Your task to perform on an android device: Go to eBay Image 0: 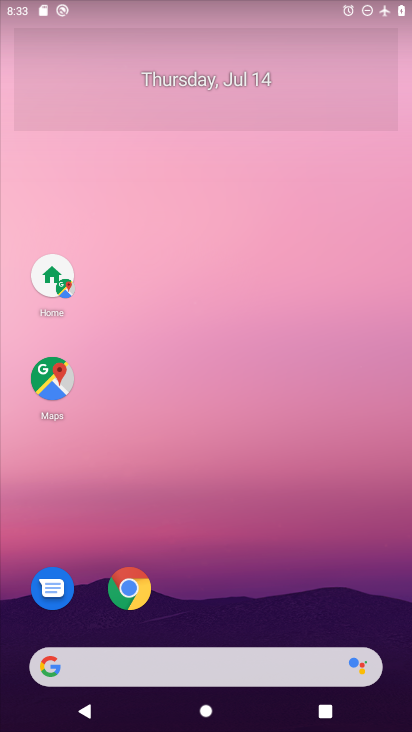
Step 0: click (113, 665)
Your task to perform on an android device: Go to eBay Image 1: 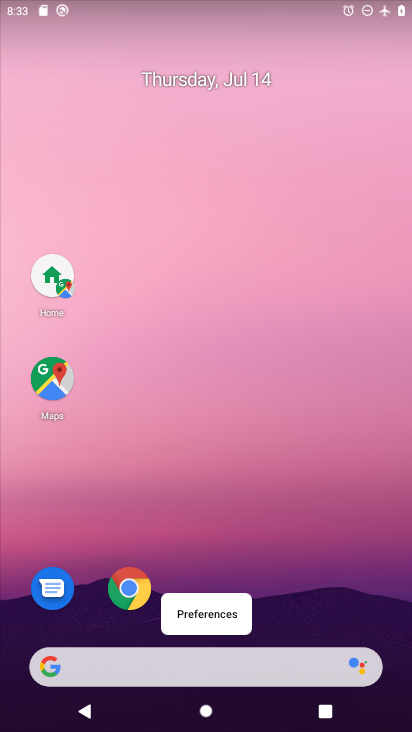
Step 1: click (108, 650)
Your task to perform on an android device: Go to eBay Image 2: 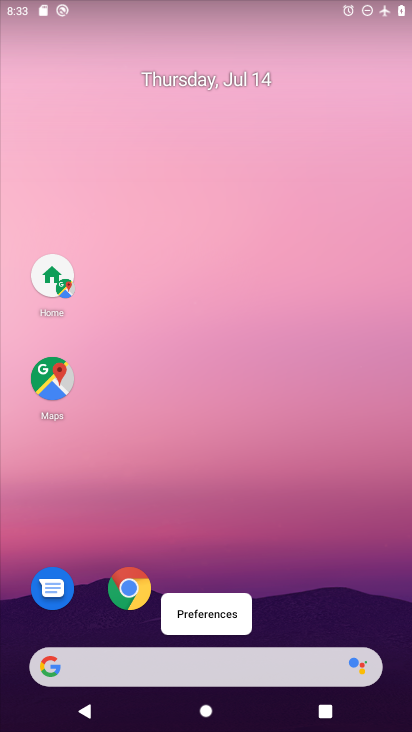
Step 2: click (148, 668)
Your task to perform on an android device: Go to eBay Image 3: 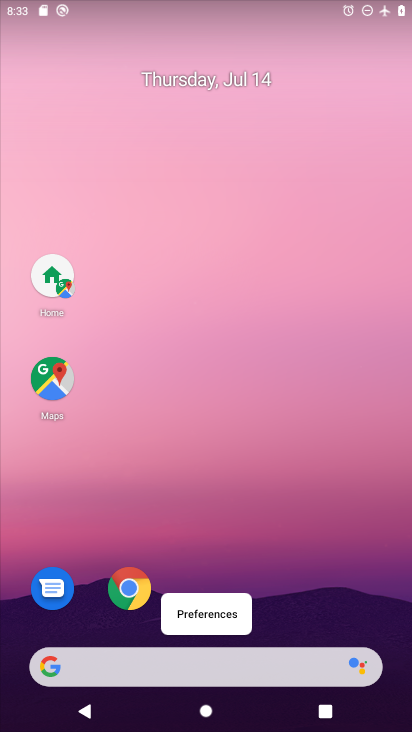
Step 3: click (145, 670)
Your task to perform on an android device: Go to eBay Image 4: 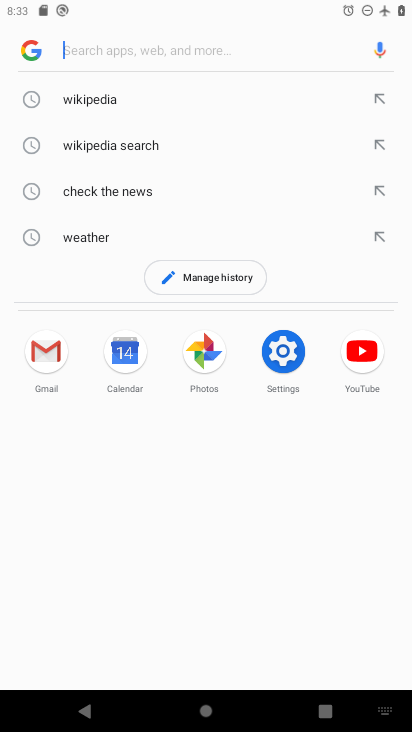
Step 4: type "eBay"
Your task to perform on an android device: Go to eBay Image 5: 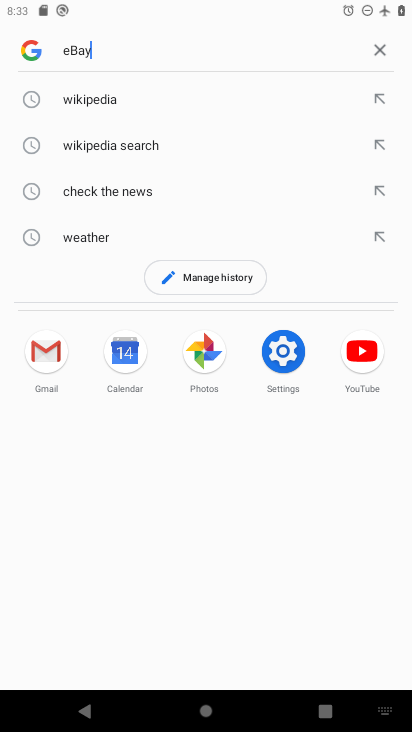
Step 5: type ""
Your task to perform on an android device: Go to eBay Image 6: 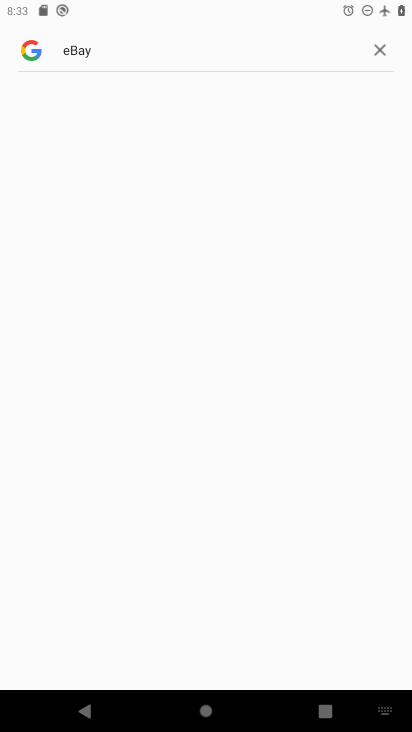
Step 6: type ""
Your task to perform on an android device: Go to eBay Image 7: 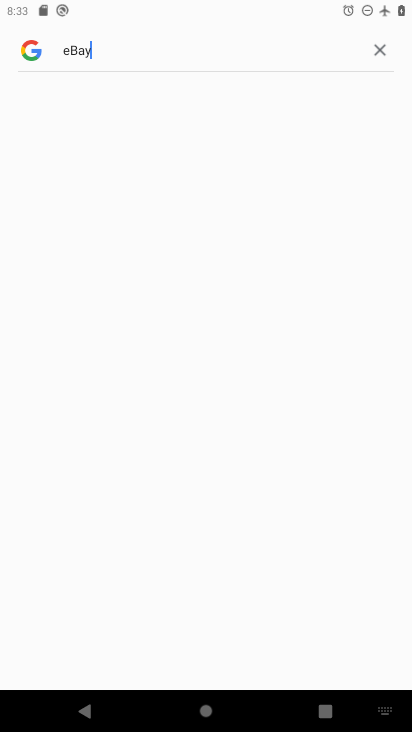
Step 7: task complete